Your task to perform on an android device: Is it going to rain today? Image 0: 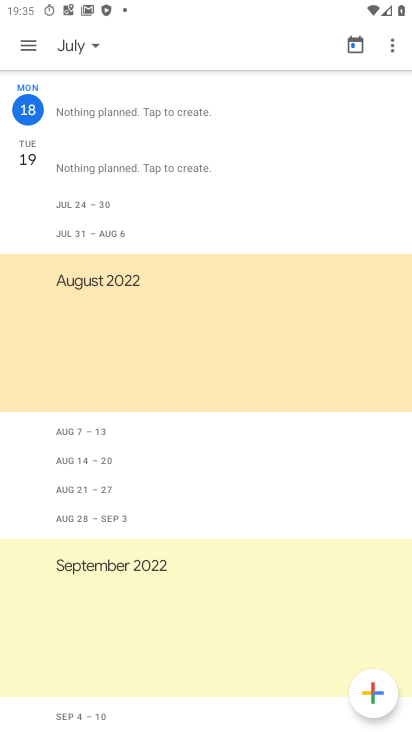
Step 0: press home button
Your task to perform on an android device: Is it going to rain today? Image 1: 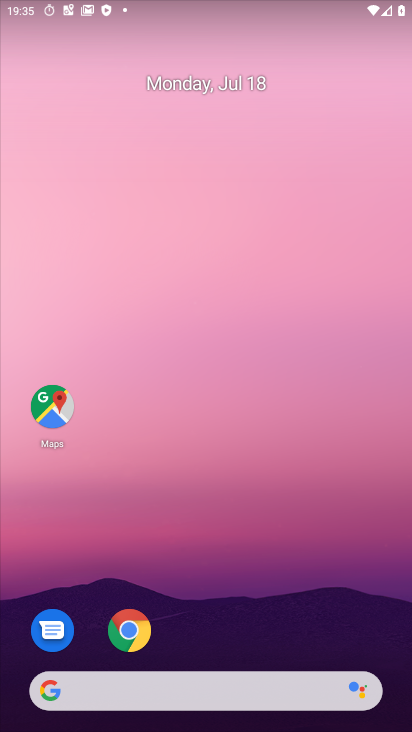
Step 1: drag from (175, 513) to (132, 49)
Your task to perform on an android device: Is it going to rain today? Image 2: 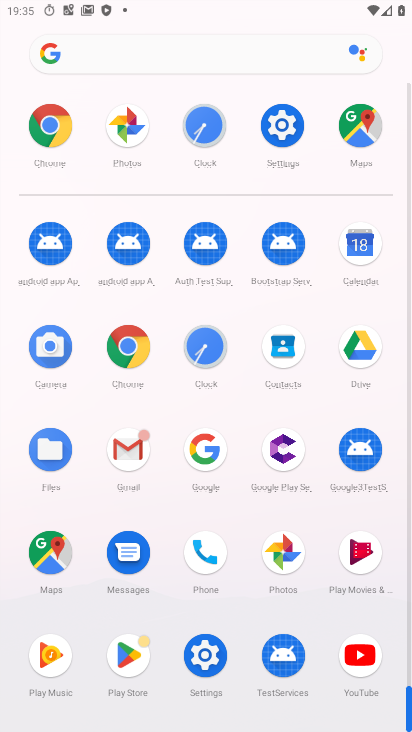
Step 2: click (195, 448)
Your task to perform on an android device: Is it going to rain today? Image 3: 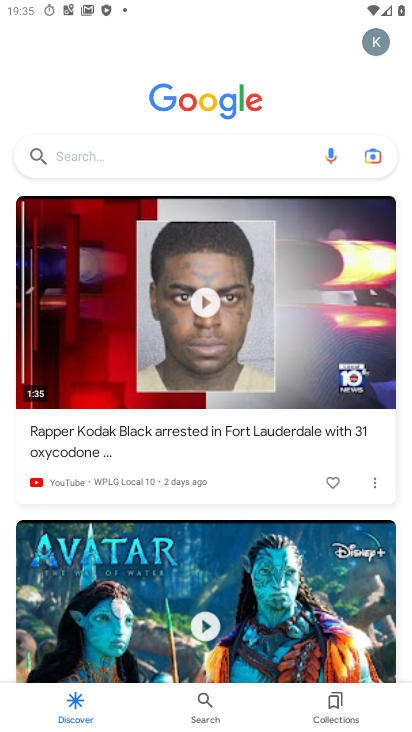
Step 3: click (120, 161)
Your task to perform on an android device: Is it going to rain today? Image 4: 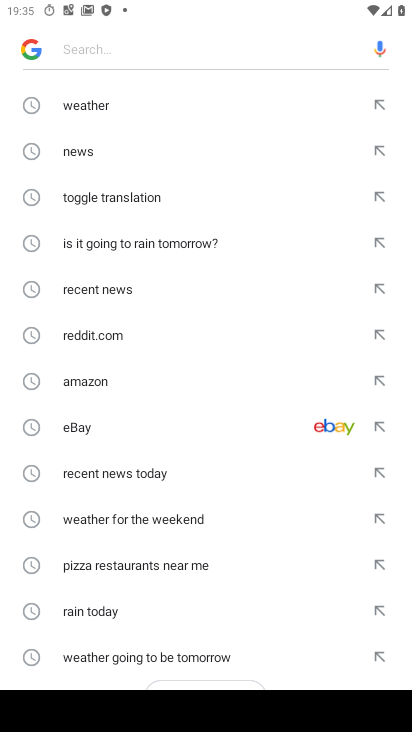
Step 4: click (80, 112)
Your task to perform on an android device: Is it going to rain today? Image 5: 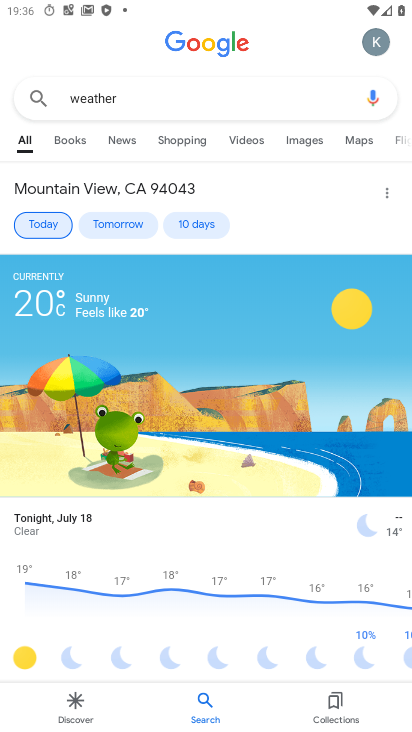
Step 5: task complete